Your task to perform on an android device: Go to settings Image 0: 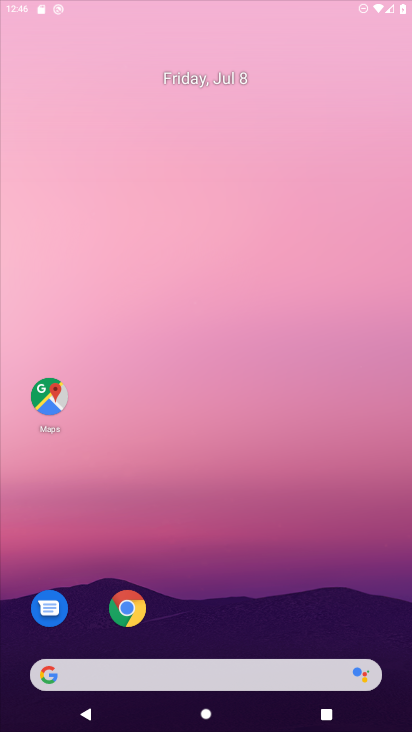
Step 0: click (238, 125)
Your task to perform on an android device: Go to settings Image 1: 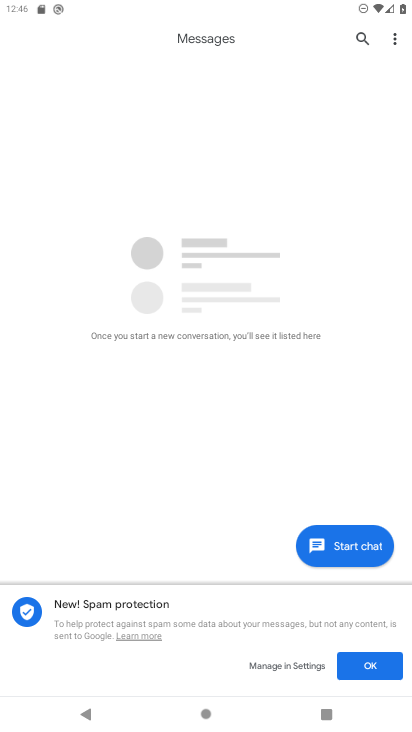
Step 1: press home button
Your task to perform on an android device: Go to settings Image 2: 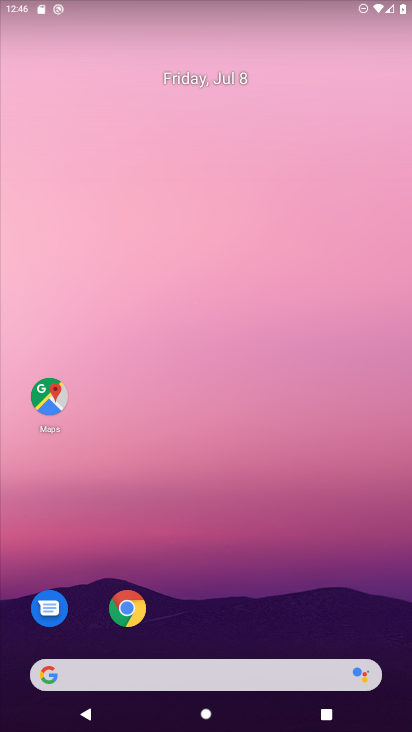
Step 2: drag from (239, 715) to (236, 588)
Your task to perform on an android device: Go to settings Image 3: 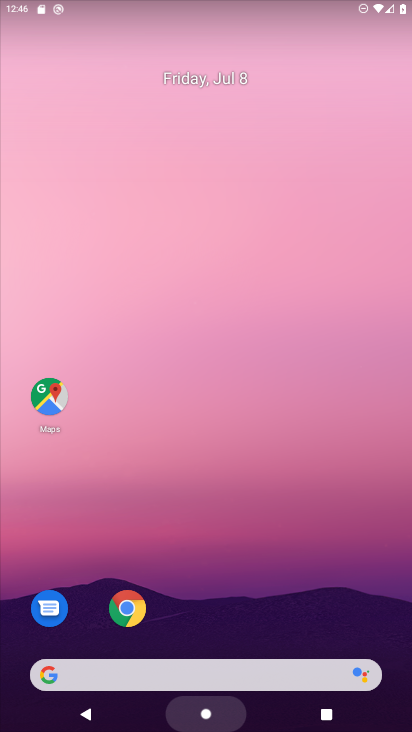
Step 3: drag from (236, 229) to (234, 80)
Your task to perform on an android device: Go to settings Image 4: 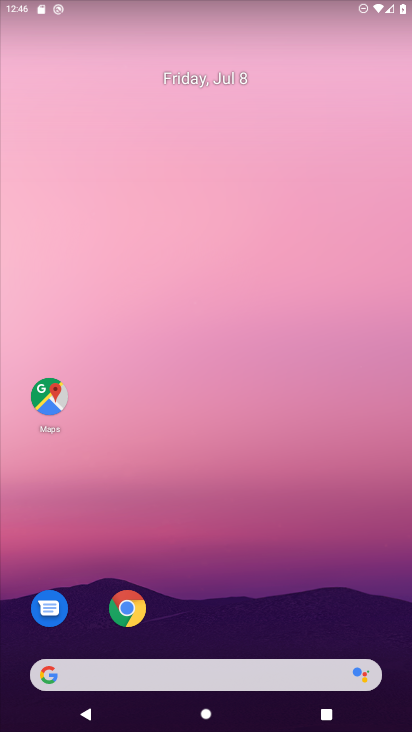
Step 4: drag from (260, 710) to (245, 38)
Your task to perform on an android device: Go to settings Image 5: 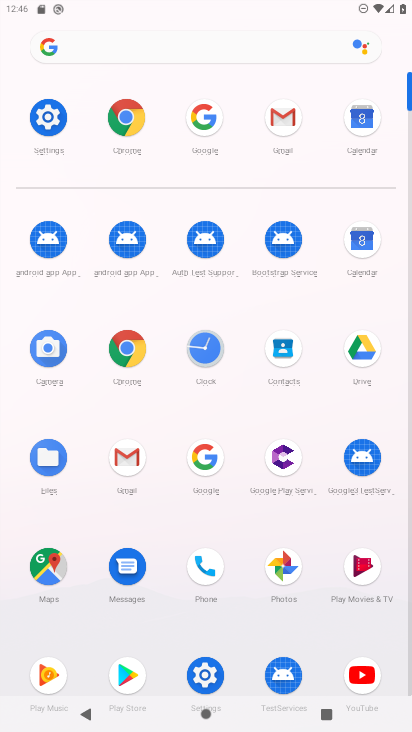
Step 5: click (45, 117)
Your task to perform on an android device: Go to settings Image 6: 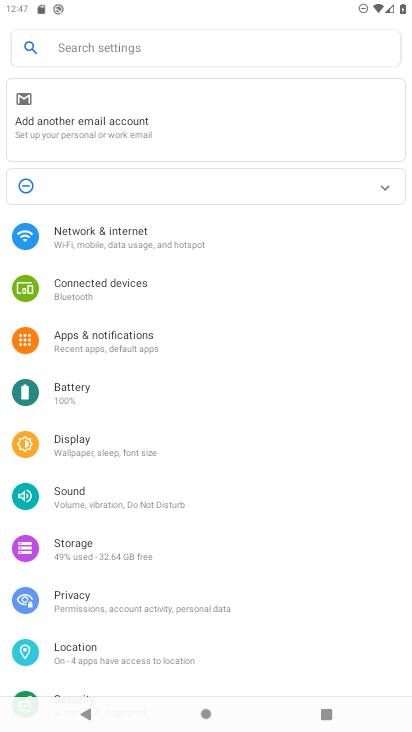
Step 6: task complete